Your task to perform on an android device: turn off smart reply in the gmail app Image 0: 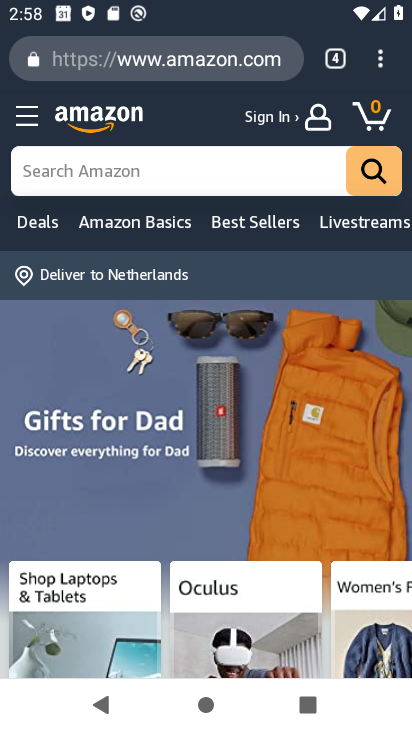
Step 0: press home button
Your task to perform on an android device: turn off smart reply in the gmail app Image 1: 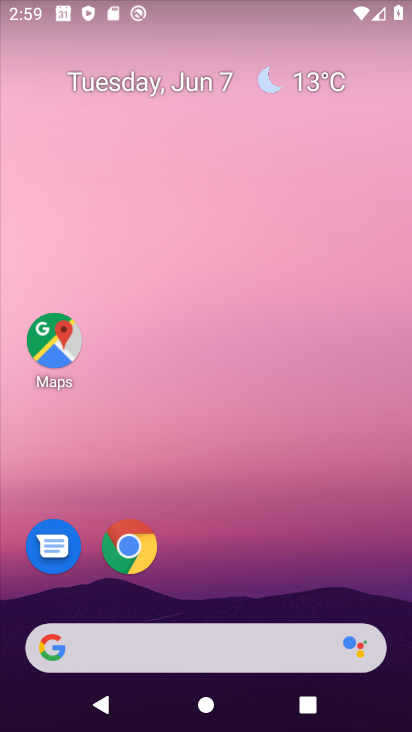
Step 1: drag from (228, 607) to (256, 1)
Your task to perform on an android device: turn off smart reply in the gmail app Image 2: 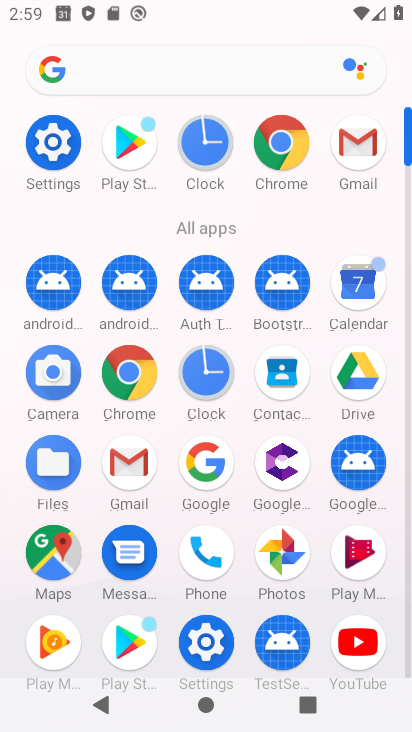
Step 2: click (348, 144)
Your task to perform on an android device: turn off smart reply in the gmail app Image 3: 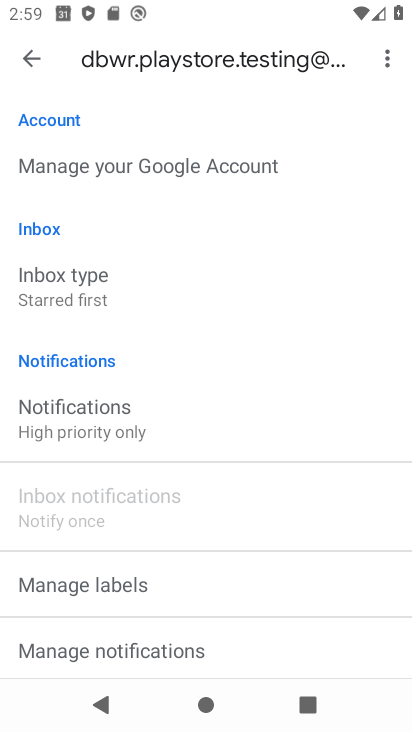
Step 3: task complete